Your task to perform on an android device: Go to network settings Image 0: 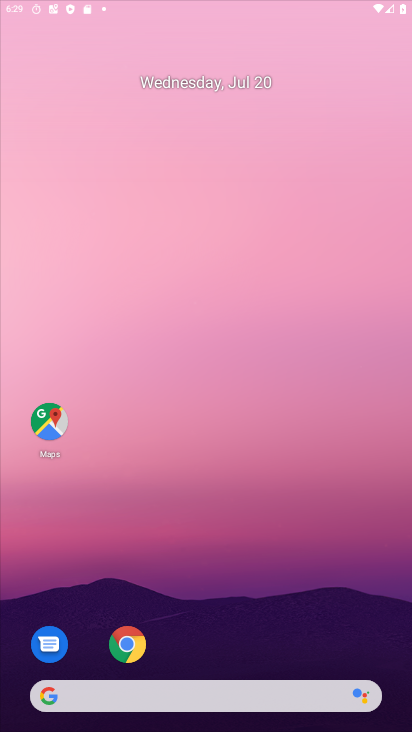
Step 0: press home button
Your task to perform on an android device: Go to network settings Image 1: 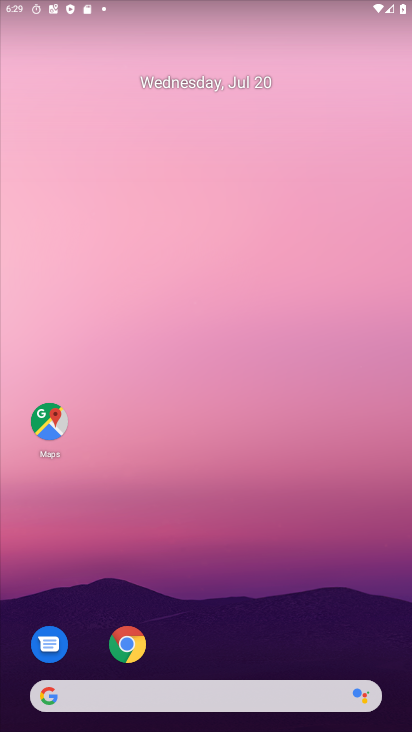
Step 1: drag from (233, 665) to (132, 6)
Your task to perform on an android device: Go to network settings Image 2: 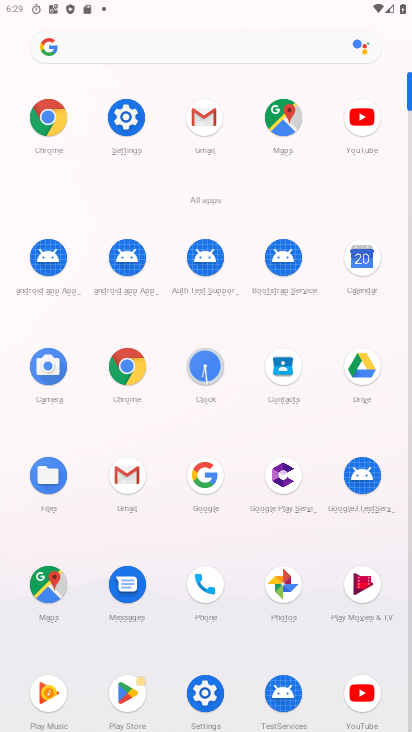
Step 2: click (123, 117)
Your task to perform on an android device: Go to network settings Image 3: 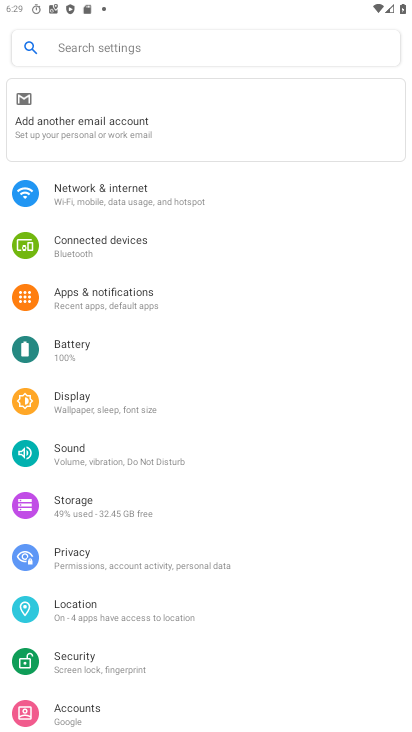
Step 3: click (124, 191)
Your task to perform on an android device: Go to network settings Image 4: 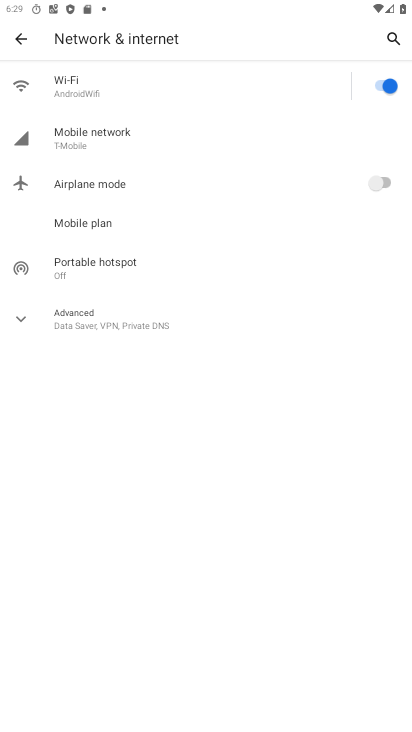
Step 4: task complete